Your task to perform on an android device: What's the weather today? Image 0: 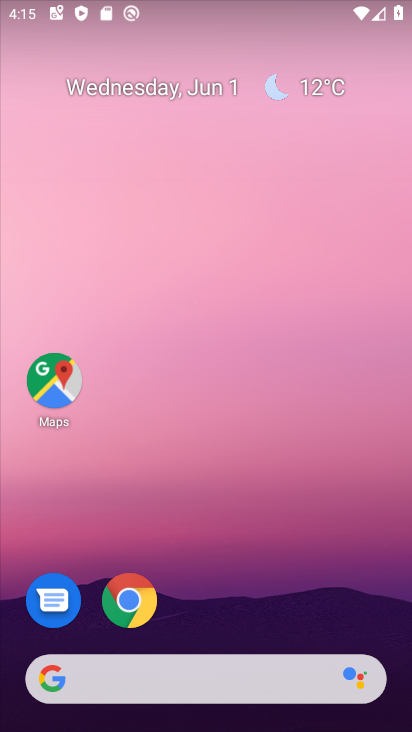
Step 0: click (318, 83)
Your task to perform on an android device: What's the weather today? Image 1: 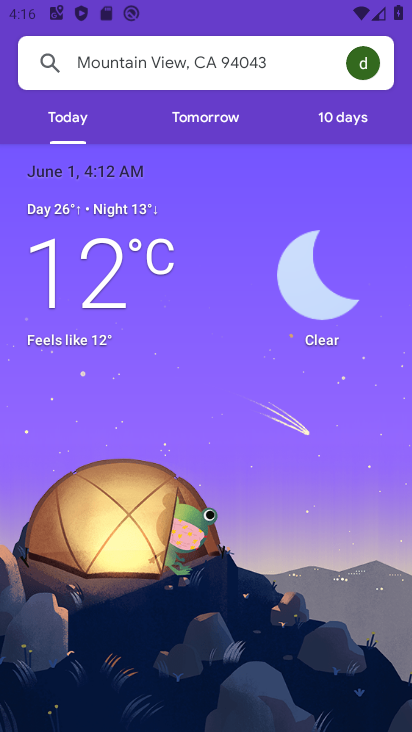
Step 1: drag from (310, 550) to (262, 187)
Your task to perform on an android device: What's the weather today? Image 2: 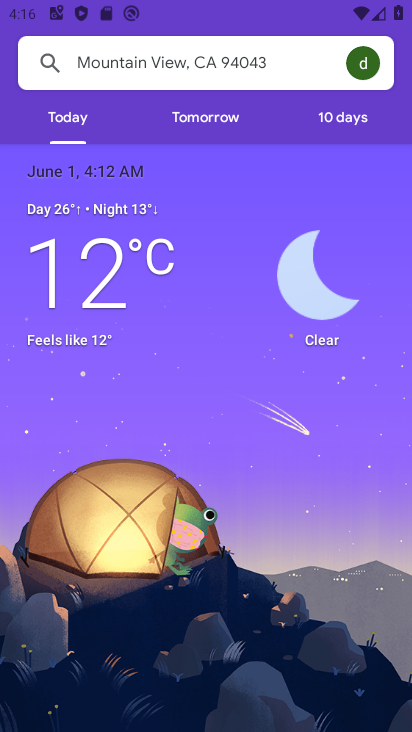
Step 2: drag from (245, 612) to (258, 253)
Your task to perform on an android device: What's the weather today? Image 3: 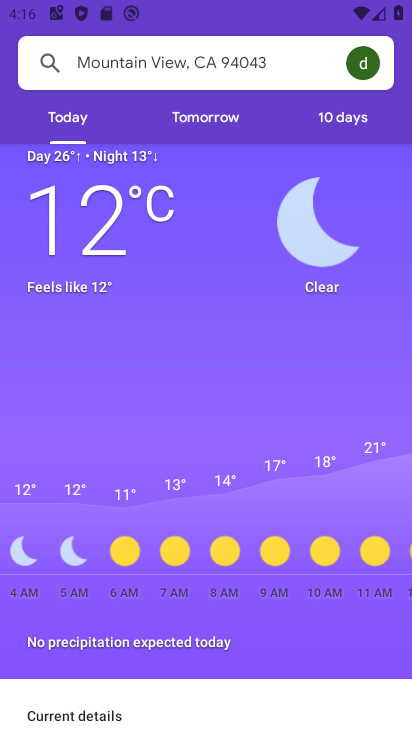
Step 3: click (381, 563)
Your task to perform on an android device: What's the weather today? Image 4: 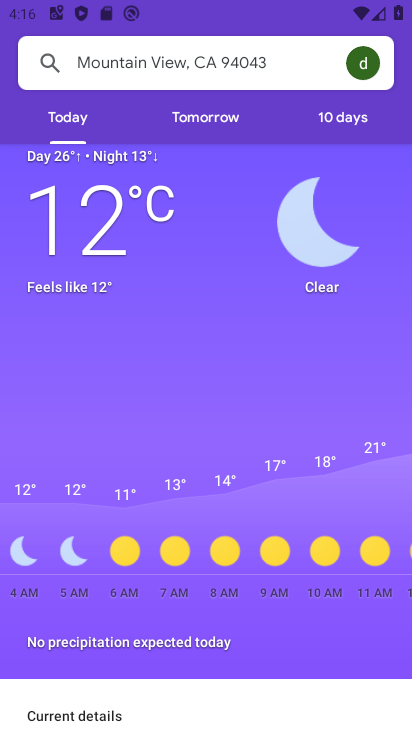
Step 4: task complete